Your task to perform on an android device: all mails in gmail Image 0: 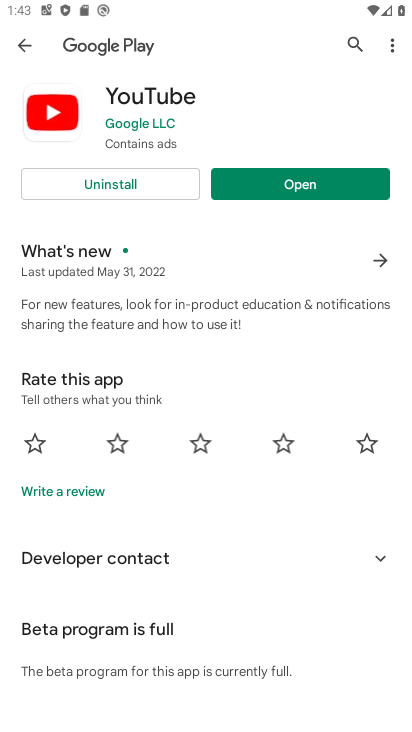
Step 0: press home button
Your task to perform on an android device: all mails in gmail Image 1: 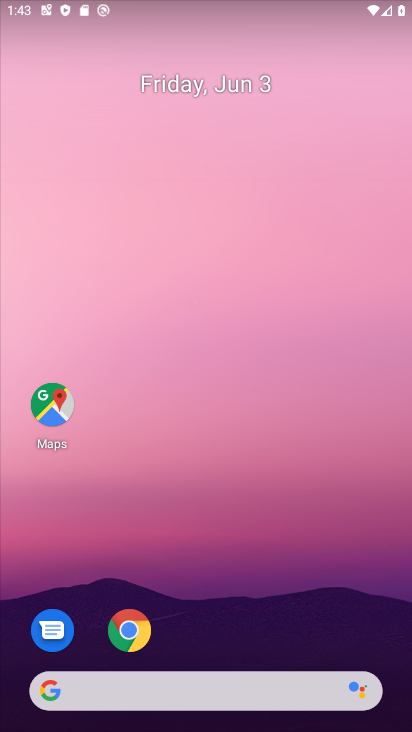
Step 1: drag from (210, 728) to (142, 177)
Your task to perform on an android device: all mails in gmail Image 2: 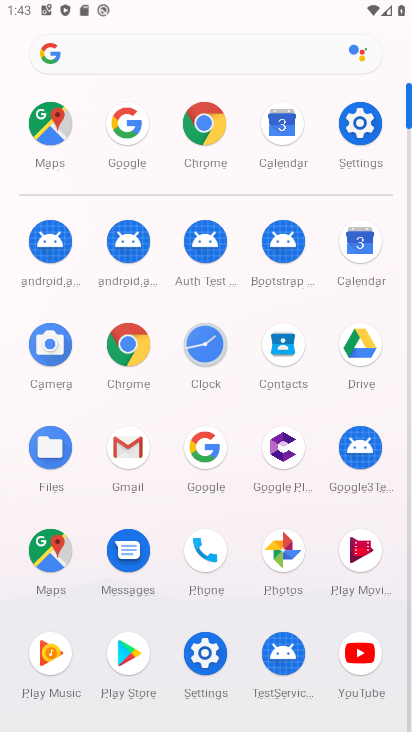
Step 2: click (128, 440)
Your task to perform on an android device: all mails in gmail Image 3: 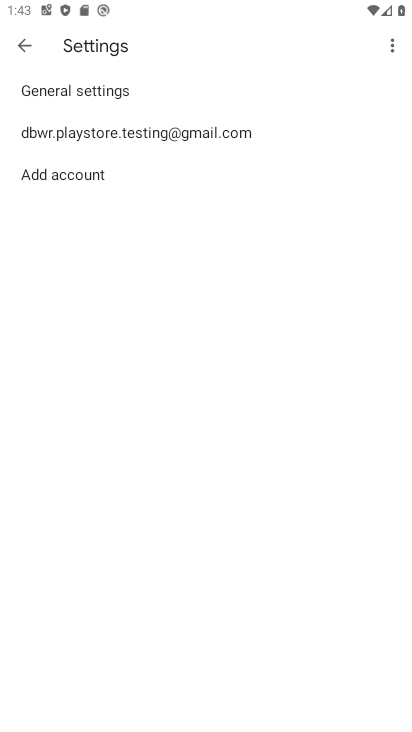
Step 3: click (23, 41)
Your task to perform on an android device: all mails in gmail Image 4: 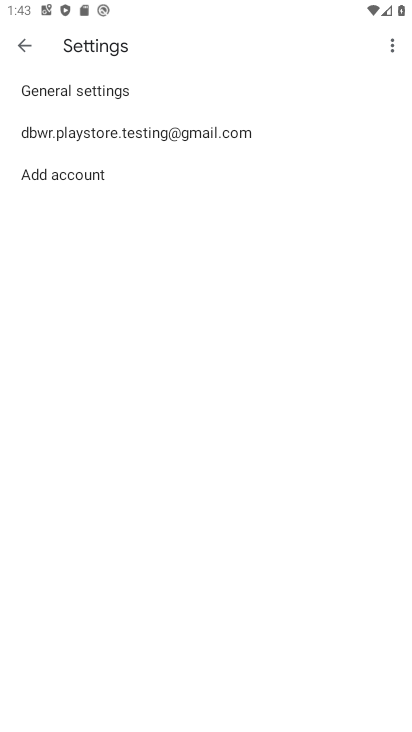
Step 4: click (29, 47)
Your task to perform on an android device: all mails in gmail Image 5: 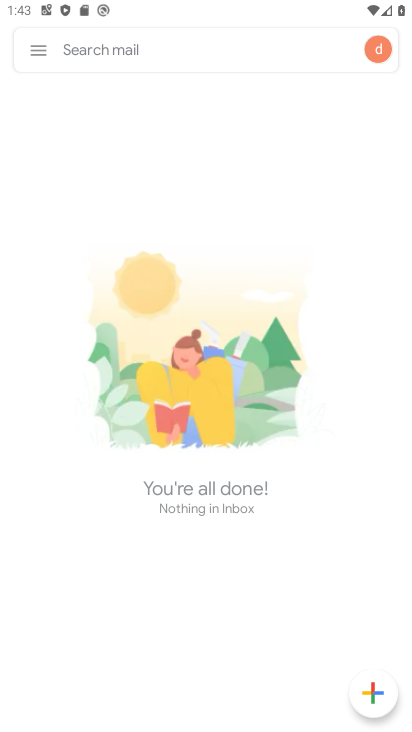
Step 5: click (32, 48)
Your task to perform on an android device: all mails in gmail Image 6: 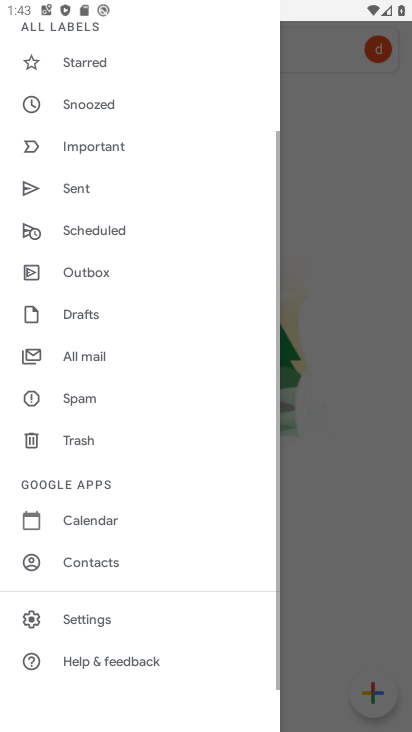
Step 6: drag from (100, 101) to (104, 462)
Your task to perform on an android device: all mails in gmail Image 7: 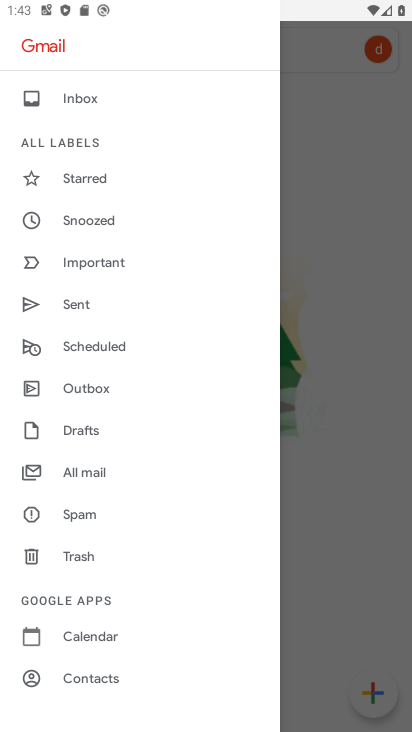
Step 7: click (82, 470)
Your task to perform on an android device: all mails in gmail Image 8: 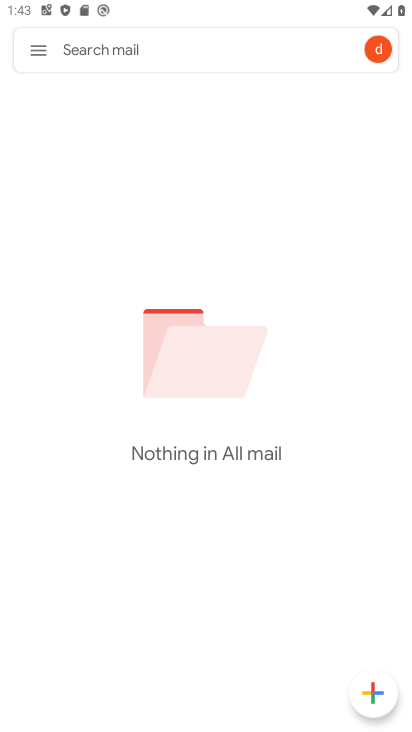
Step 8: task complete